Your task to perform on an android device: Go to Maps Image 0: 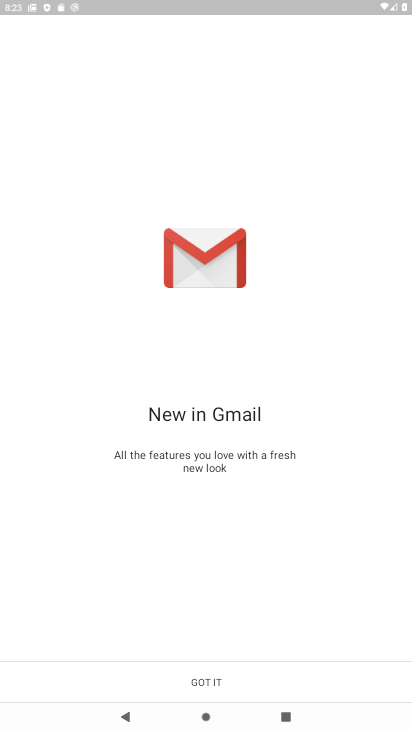
Step 0: press home button
Your task to perform on an android device: Go to Maps Image 1: 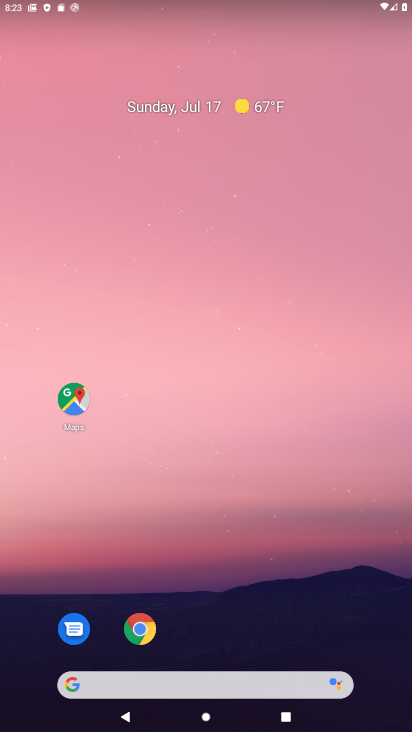
Step 1: click (71, 402)
Your task to perform on an android device: Go to Maps Image 2: 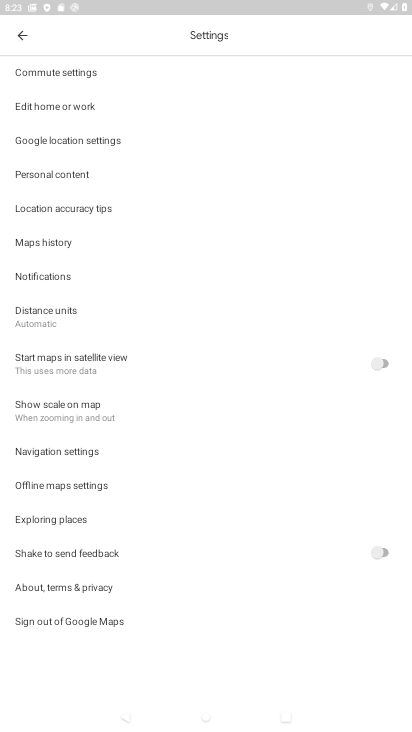
Step 2: click (16, 30)
Your task to perform on an android device: Go to Maps Image 3: 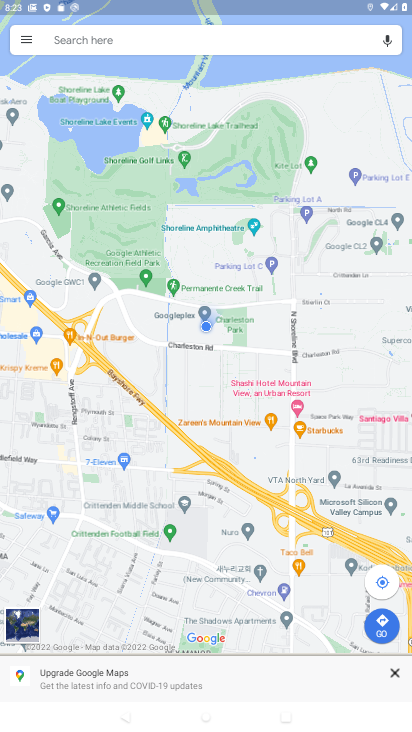
Step 3: task complete